Your task to perform on an android device: set the timer Image 0: 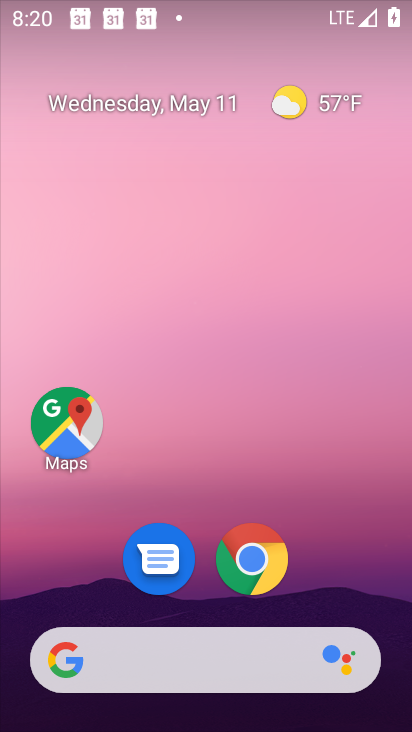
Step 0: drag from (367, 520) to (335, 3)
Your task to perform on an android device: set the timer Image 1: 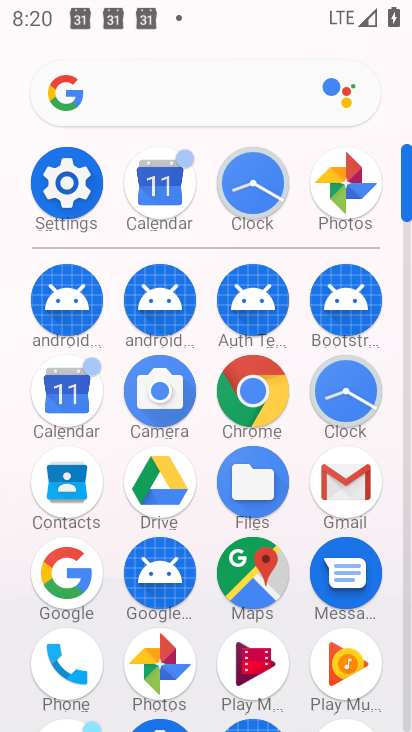
Step 1: click (243, 158)
Your task to perform on an android device: set the timer Image 2: 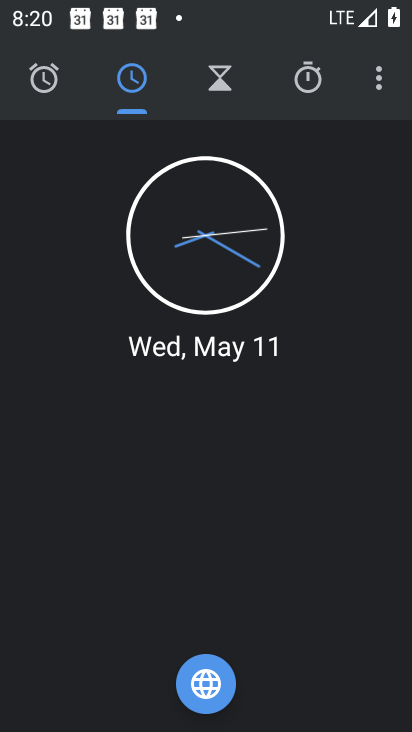
Step 2: click (205, 74)
Your task to perform on an android device: set the timer Image 3: 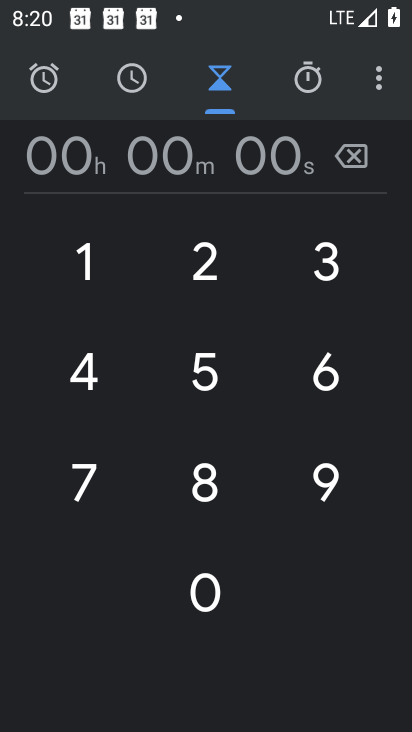
Step 3: click (185, 494)
Your task to perform on an android device: set the timer Image 4: 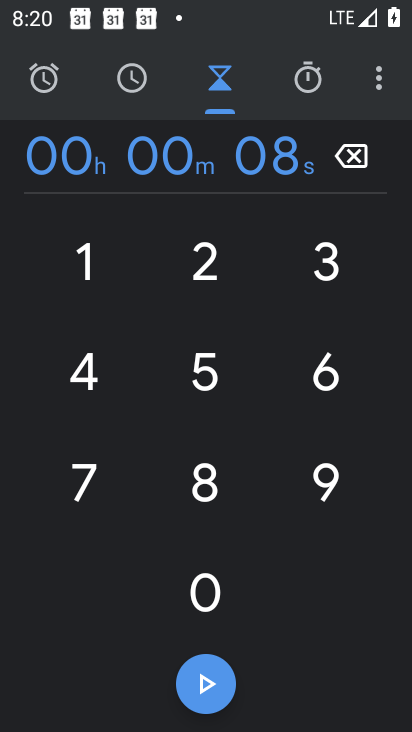
Step 4: click (199, 679)
Your task to perform on an android device: set the timer Image 5: 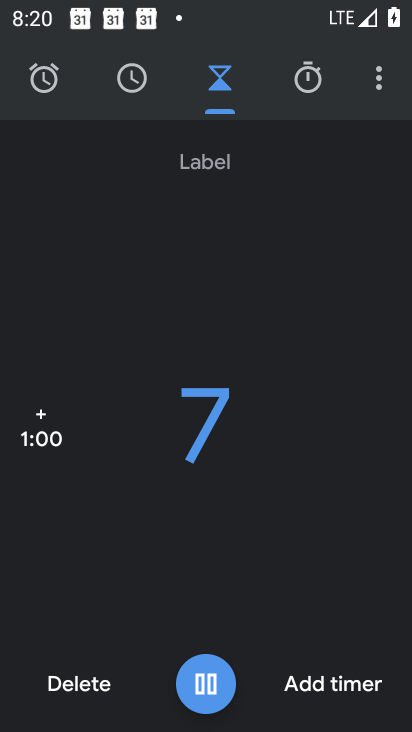
Step 5: task complete